Your task to perform on an android device: check google app version Image 0: 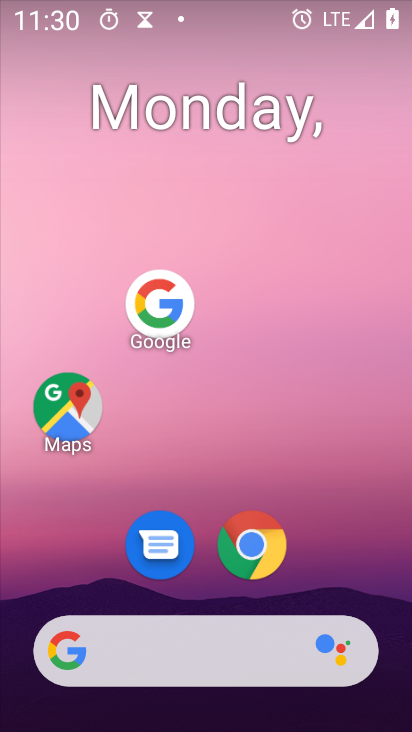
Step 0: press home button
Your task to perform on an android device: check google app version Image 1: 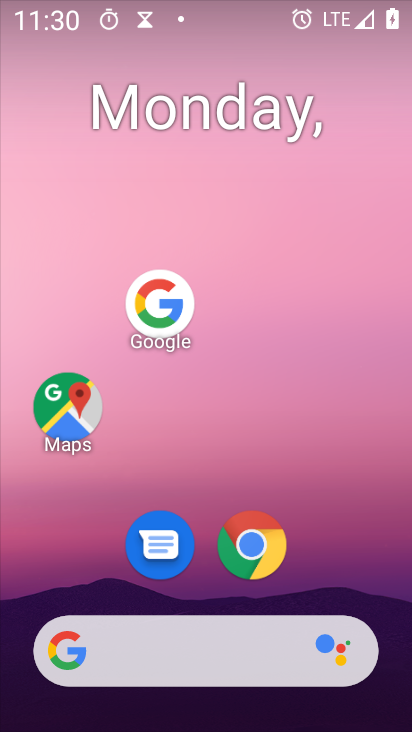
Step 1: drag from (206, 647) to (288, 111)
Your task to perform on an android device: check google app version Image 2: 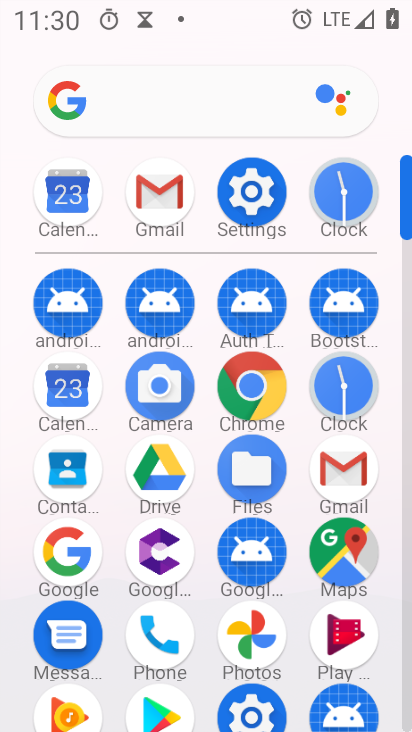
Step 2: drag from (85, 558) to (202, 296)
Your task to perform on an android device: check google app version Image 3: 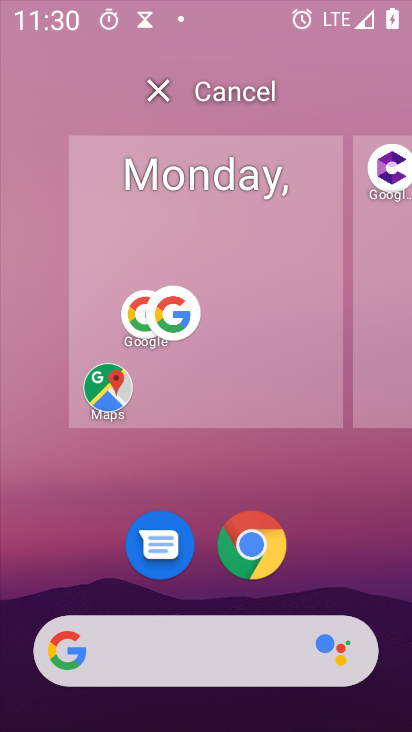
Step 3: click (260, 277)
Your task to perform on an android device: check google app version Image 4: 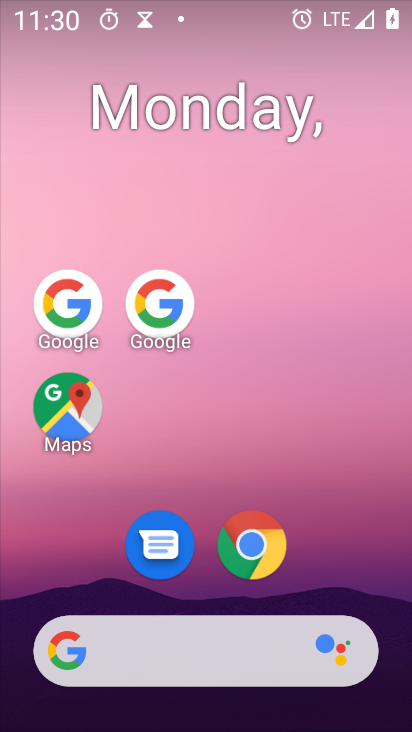
Step 4: click (181, 319)
Your task to perform on an android device: check google app version Image 5: 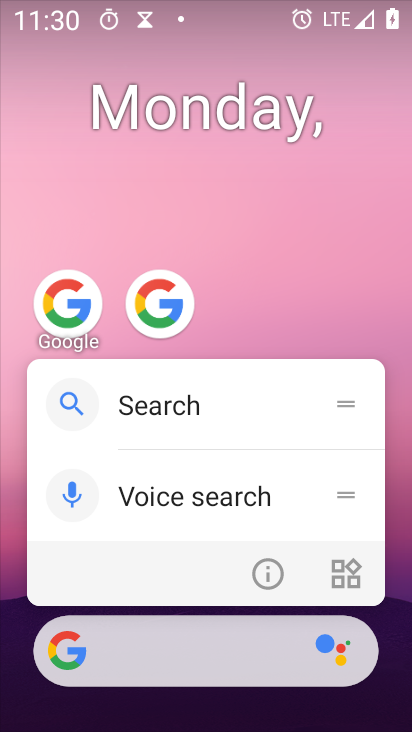
Step 5: click (269, 576)
Your task to perform on an android device: check google app version Image 6: 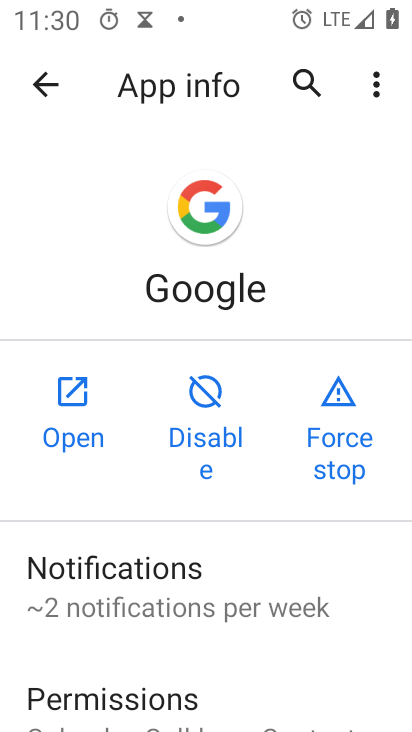
Step 6: drag from (211, 693) to (343, 293)
Your task to perform on an android device: check google app version Image 7: 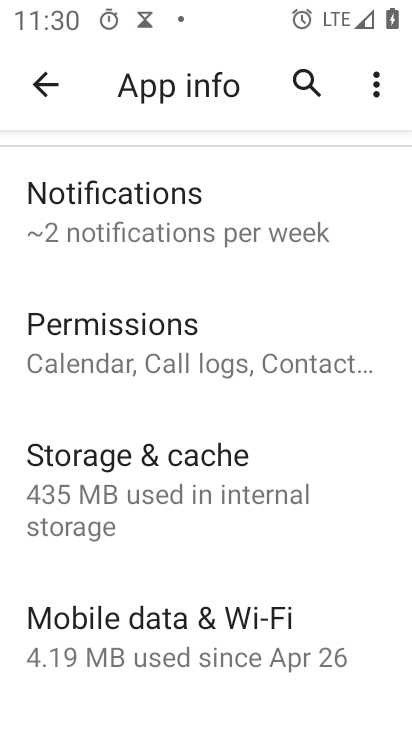
Step 7: drag from (204, 673) to (342, 162)
Your task to perform on an android device: check google app version Image 8: 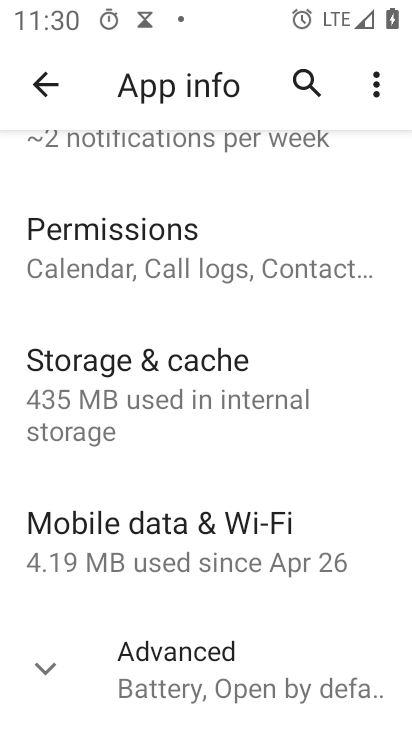
Step 8: click (137, 665)
Your task to perform on an android device: check google app version Image 9: 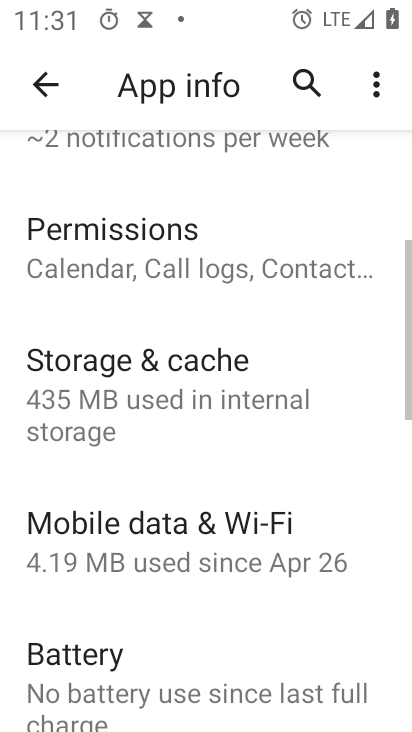
Step 9: task complete